Your task to perform on an android device: open chrome and create a bookmark for the current page Image 0: 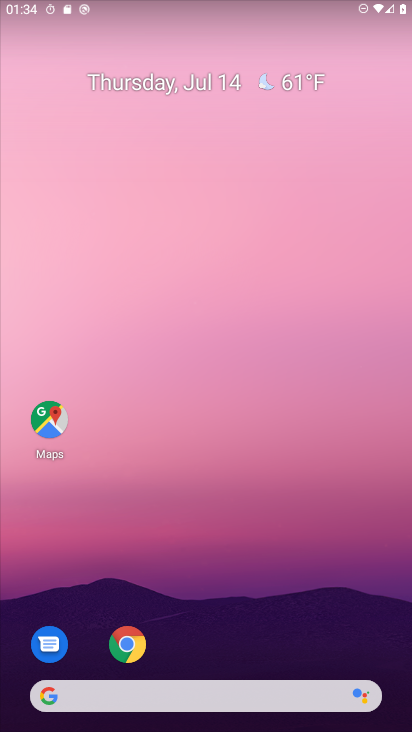
Step 0: drag from (301, 606) to (290, 118)
Your task to perform on an android device: open chrome and create a bookmark for the current page Image 1: 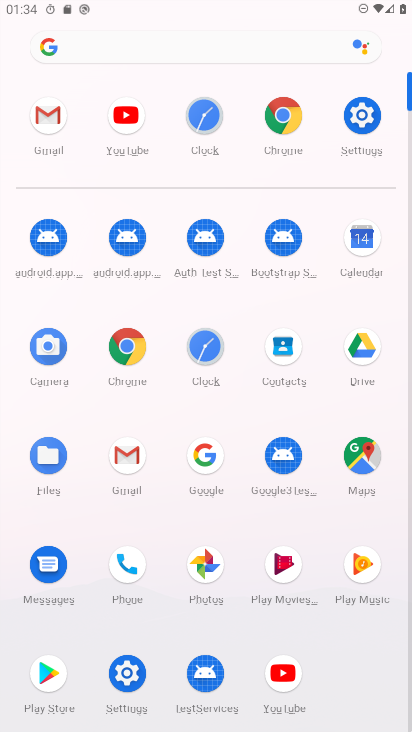
Step 1: click (283, 114)
Your task to perform on an android device: open chrome and create a bookmark for the current page Image 2: 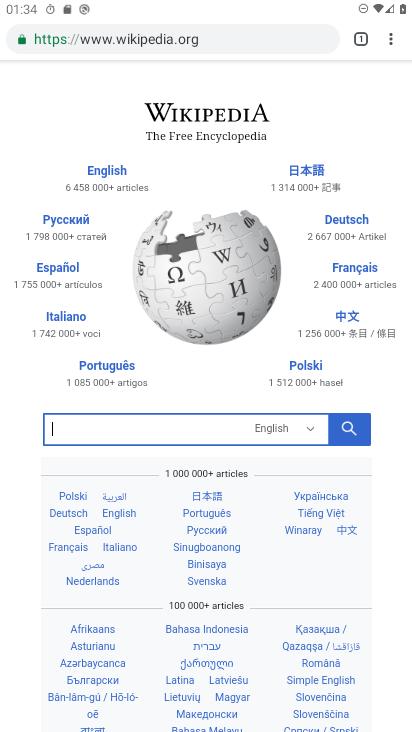
Step 2: task complete